Your task to perform on an android device: Open the stopwatch Image 0: 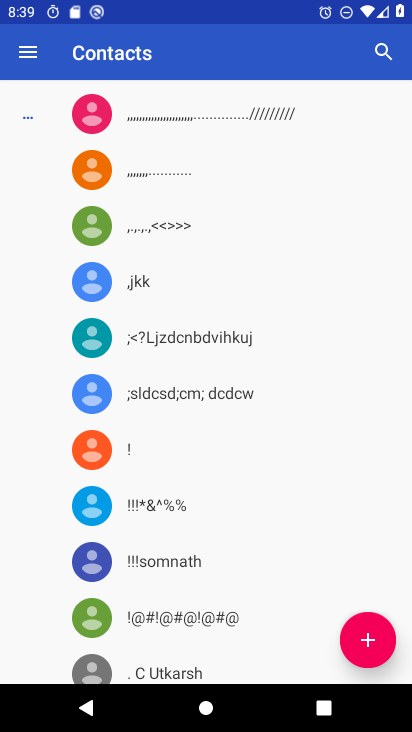
Step 0: press home button
Your task to perform on an android device: Open the stopwatch Image 1: 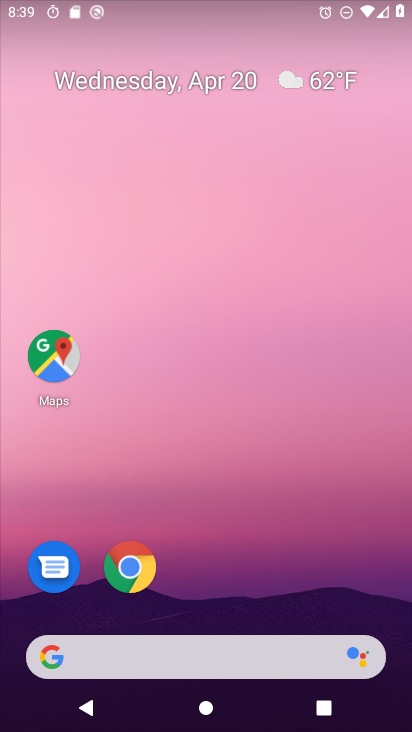
Step 1: drag from (315, 548) to (329, 171)
Your task to perform on an android device: Open the stopwatch Image 2: 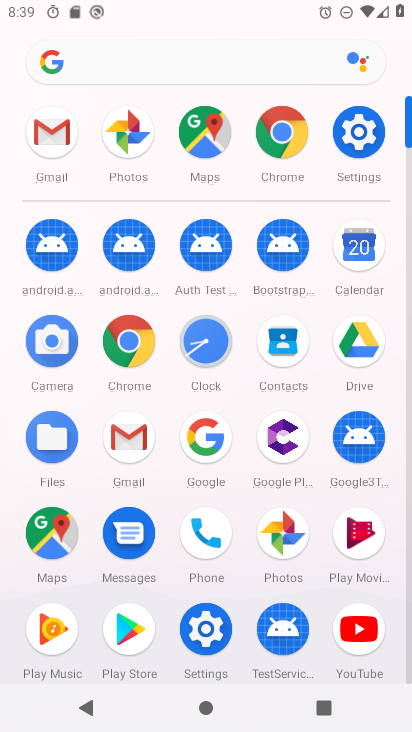
Step 2: click (193, 344)
Your task to perform on an android device: Open the stopwatch Image 3: 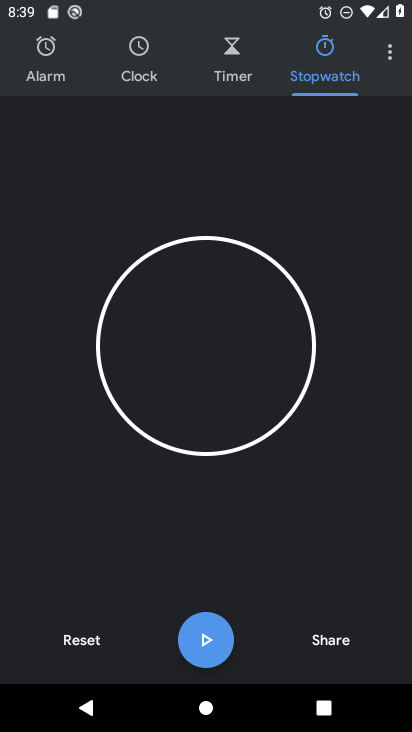
Step 3: task complete